Your task to perform on an android device: Go to display settings Image 0: 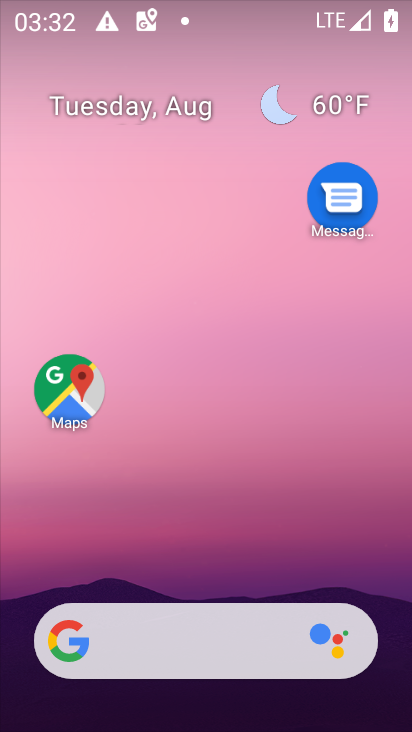
Step 0: drag from (221, 590) to (243, 95)
Your task to perform on an android device: Go to display settings Image 1: 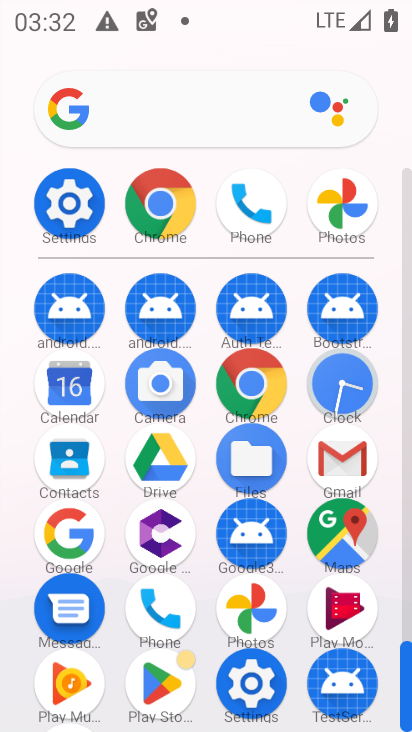
Step 1: click (259, 672)
Your task to perform on an android device: Go to display settings Image 2: 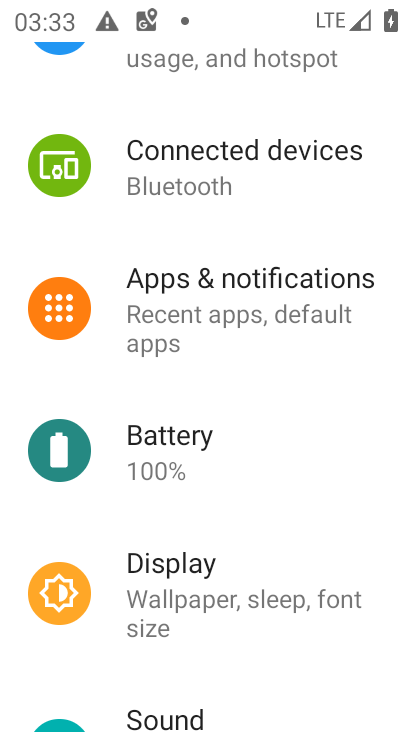
Step 2: click (248, 577)
Your task to perform on an android device: Go to display settings Image 3: 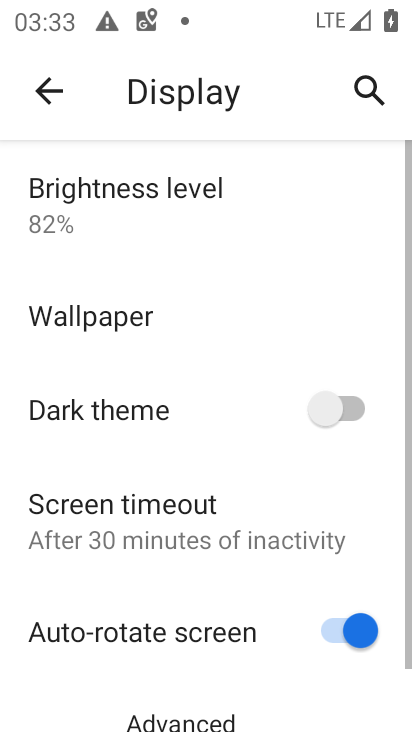
Step 3: task complete